Your task to perform on an android device: Go to eBay Image 0: 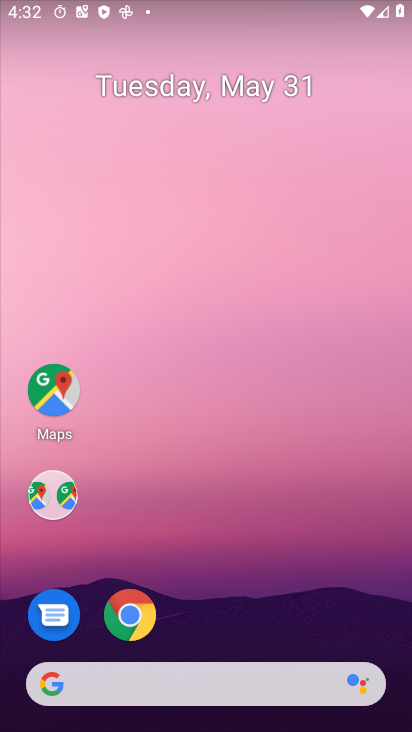
Step 0: drag from (288, 557) to (292, 46)
Your task to perform on an android device: Go to eBay Image 1: 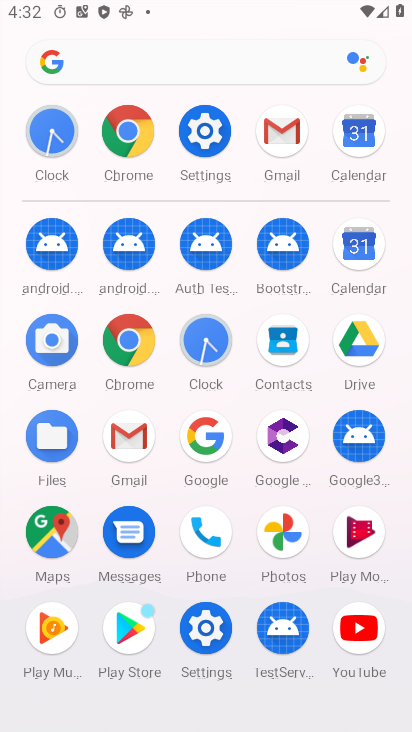
Step 1: click (118, 132)
Your task to perform on an android device: Go to eBay Image 2: 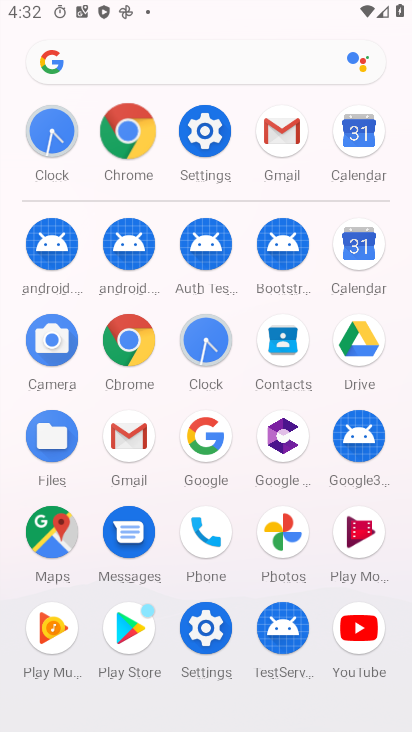
Step 2: click (123, 134)
Your task to perform on an android device: Go to eBay Image 3: 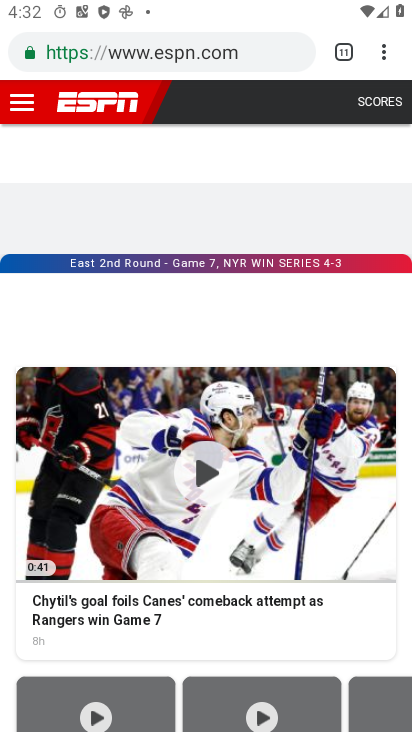
Step 3: drag from (387, 51) to (196, 90)
Your task to perform on an android device: Go to eBay Image 4: 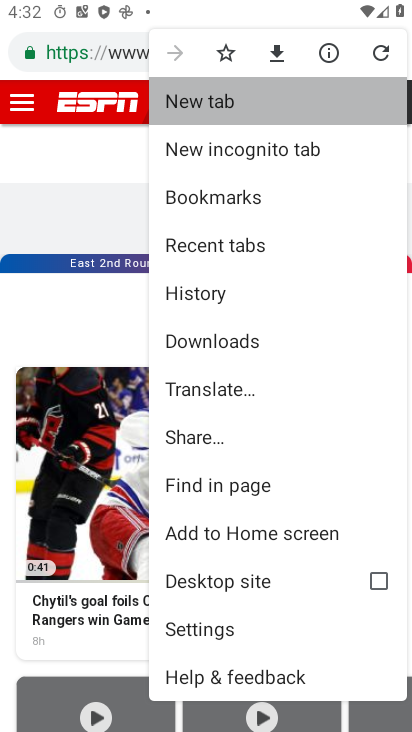
Step 4: click (198, 92)
Your task to perform on an android device: Go to eBay Image 5: 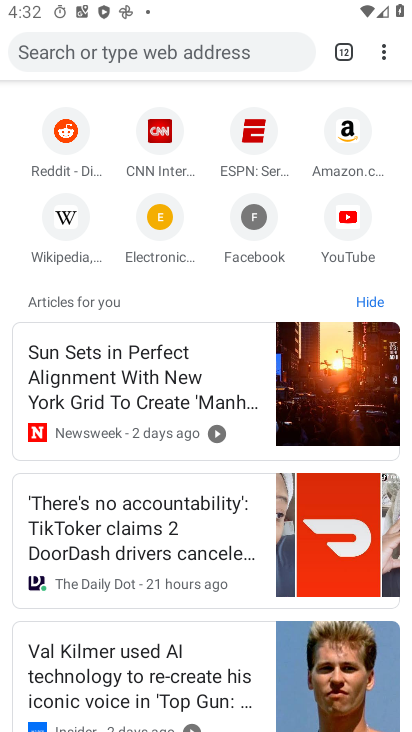
Step 5: click (130, 54)
Your task to perform on an android device: Go to eBay Image 6: 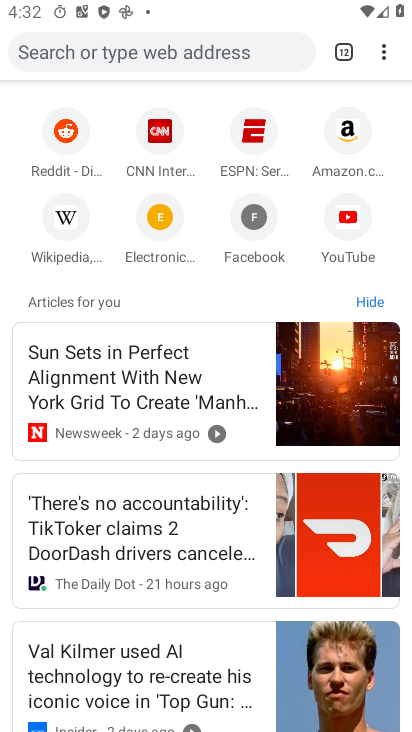
Step 6: click (129, 54)
Your task to perform on an android device: Go to eBay Image 7: 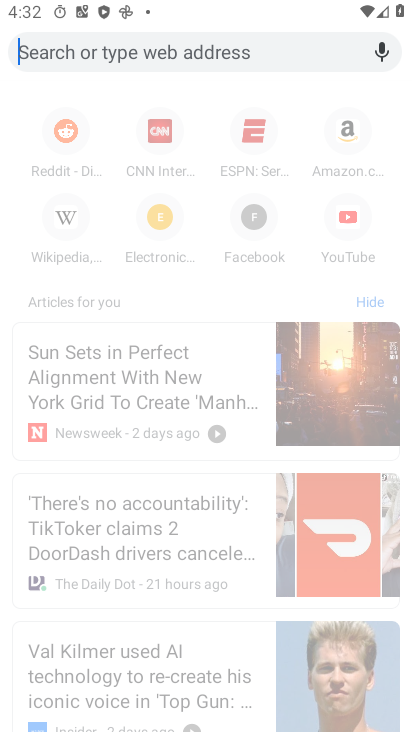
Step 7: click (129, 54)
Your task to perform on an android device: Go to eBay Image 8: 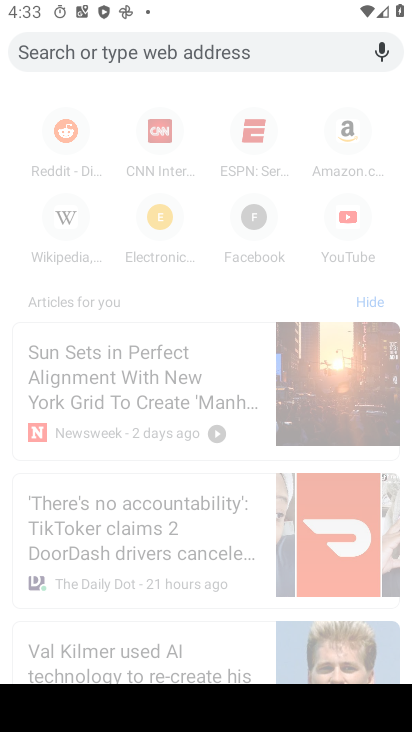
Step 8: type "ebay.com"
Your task to perform on an android device: Go to eBay Image 9: 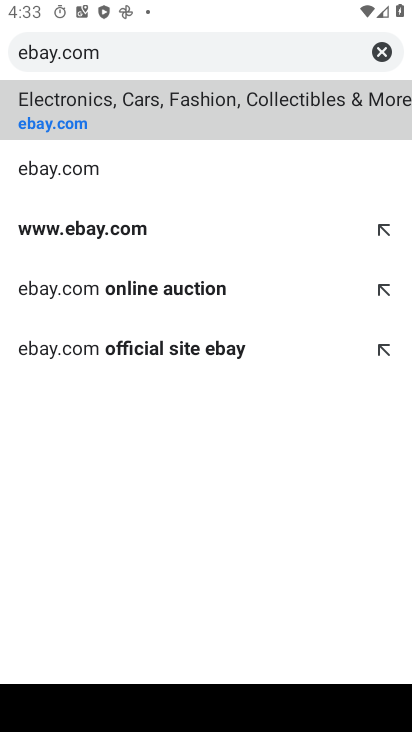
Step 9: click (75, 122)
Your task to perform on an android device: Go to eBay Image 10: 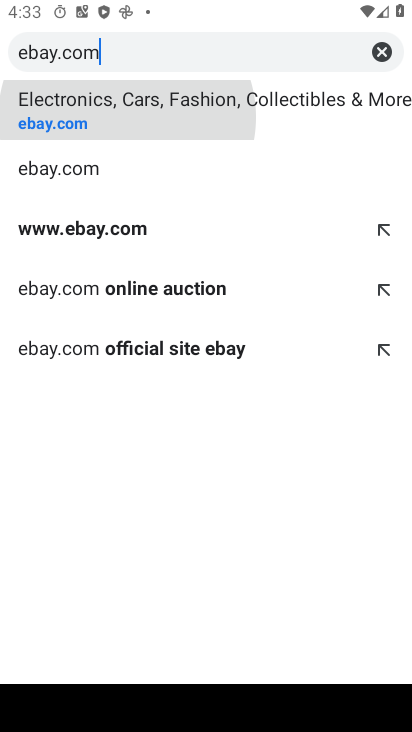
Step 10: click (68, 128)
Your task to perform on an android device: Go to eBay Image 11: 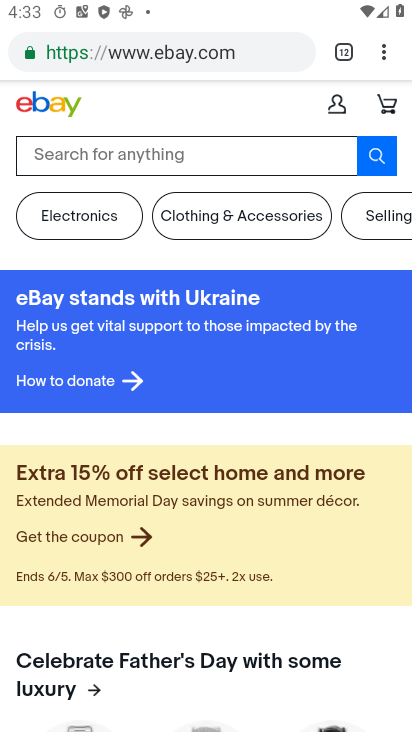
Step 11: task complete